Your task to perform on an android device: Open the calendar app, open the side menu, and click the "Day" option Image 0: 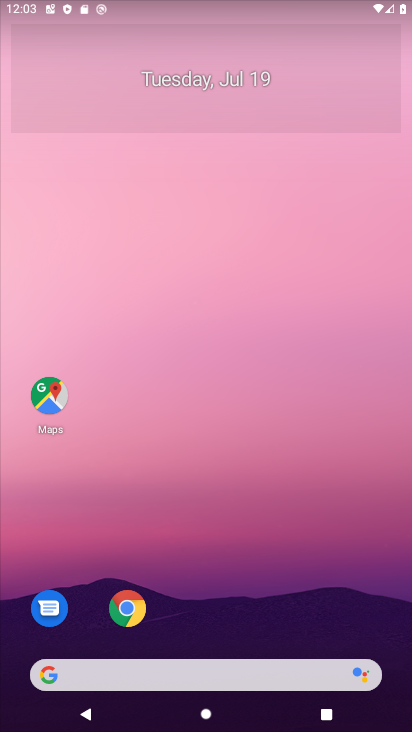
Step 0: drag from (272, 624) to (321, 180)
Your task to perform on an android device: Open the calendar app, open the side menu, and click the "Day" option Image 1: 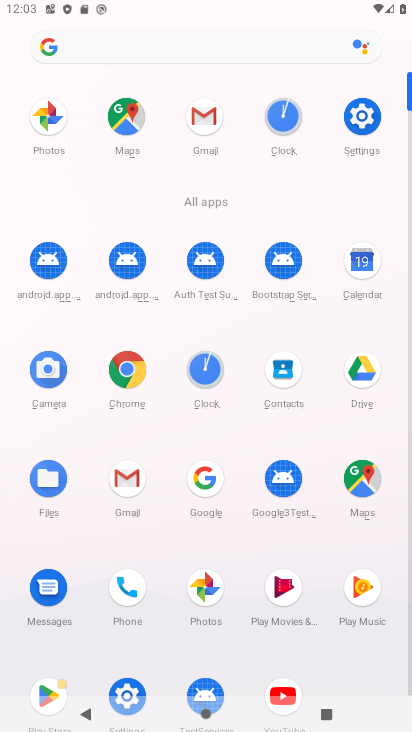
Step 1: click (365, 270)
Your task to perform on an android device: Open the calendar app, open the side menu, and click the "Day" option Image 2: 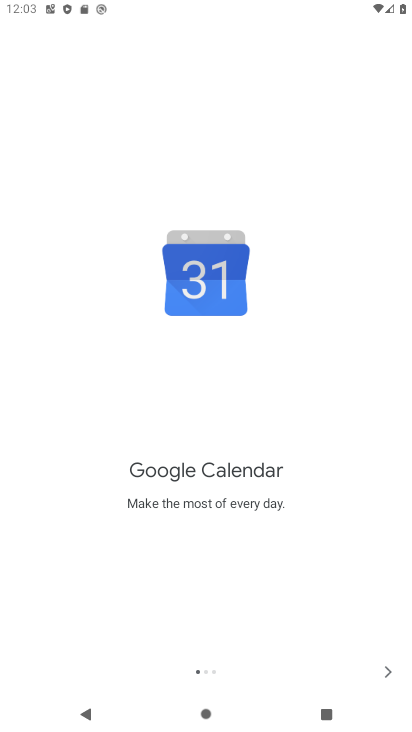
Step 2: click (374, 675)
Your task to perform on an android device: Open the calendar app, open the side menu, and click the "Day" option Image 3: 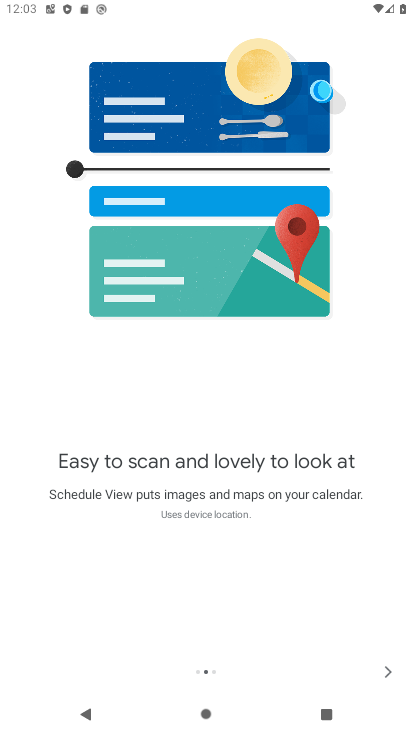
Step 3: click (374, 675)
Your task to perform on an android device: Open the calendar app, open the side menu, and click the "Day" option Image 4: 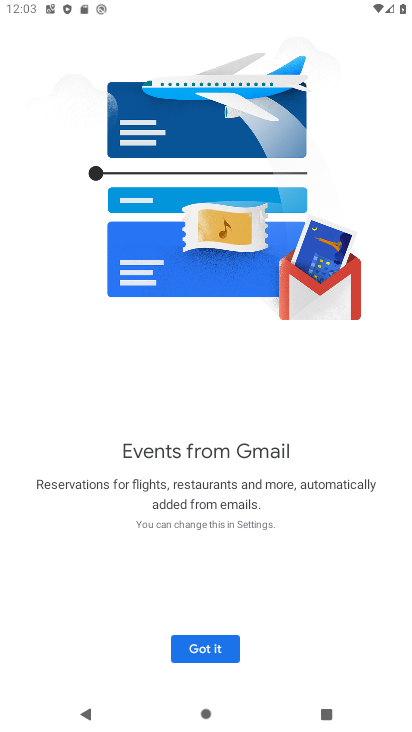
Step 4: click (211, 655)
Your task to perform on an android device: Open the calendar app, open the side menu, and click the "Day" option Image 5: 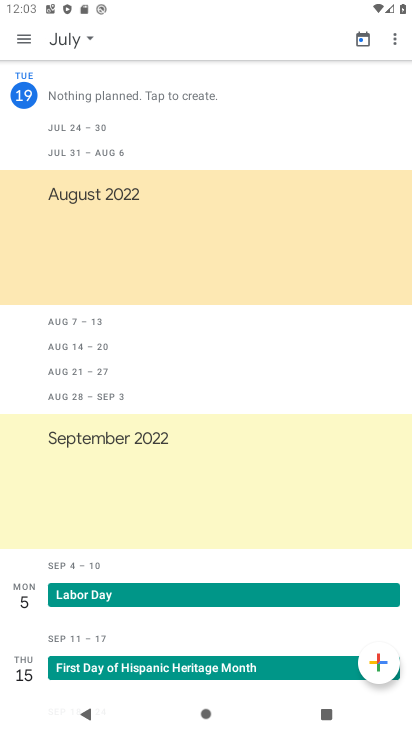
Step 5: click (23, 40)
Your task to perform on an android device: Open the calendar app, open the side menu, and click the "Day" option Image 6: 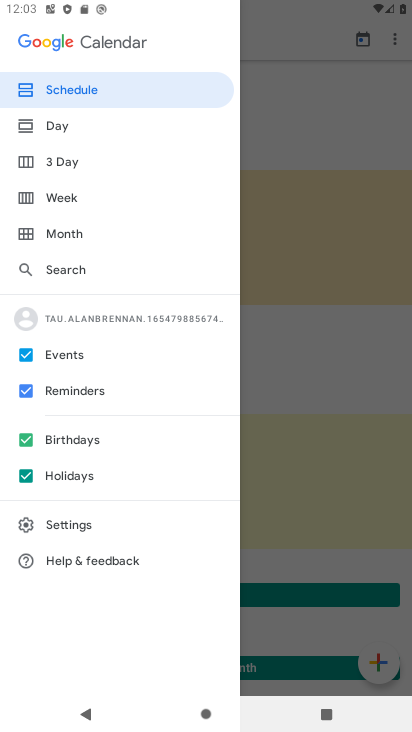
Step 6: click (81, 125)
Your task to perform on an android device: Open the calendar app, open the side menu, and click the "Day" option Image 7: 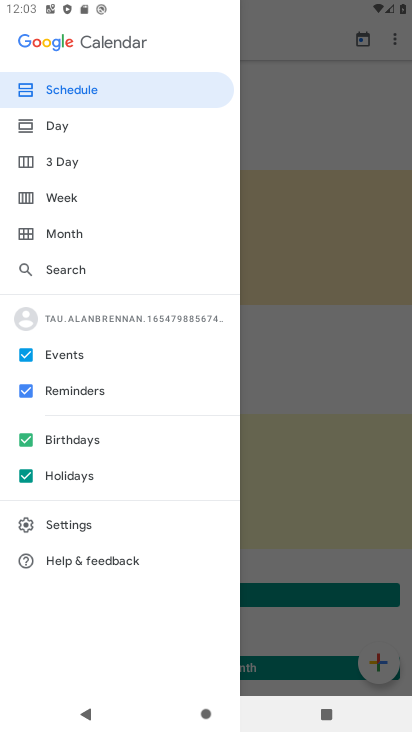
Step 7: click (82, 124)
Your task to perform on an android device: Open the calendar app, open the side menu, and click the "Day" option Image 8: 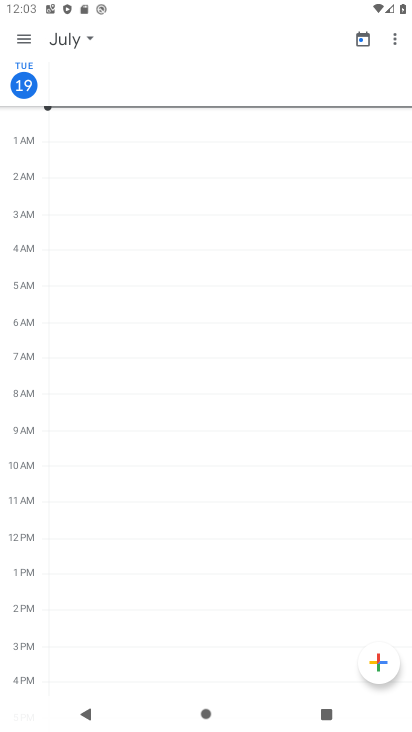
Step 8: task complete